Your task to perform on an android device: Open privacy settings Image 0: 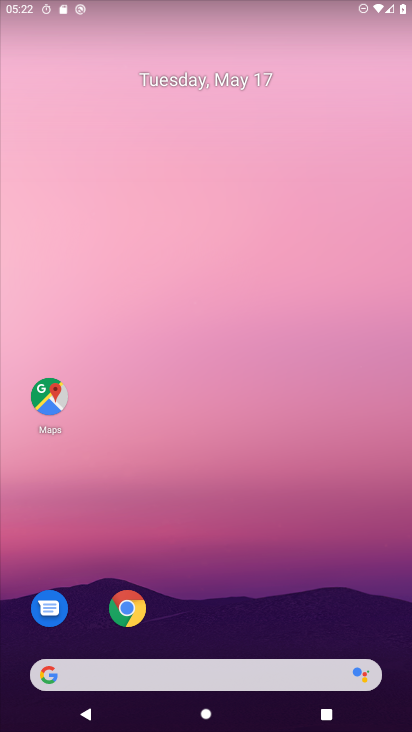
Step 0: drag from (175, 631) to (223, 248)
Your task to perform on an android device: Open privacy settings Image 1: 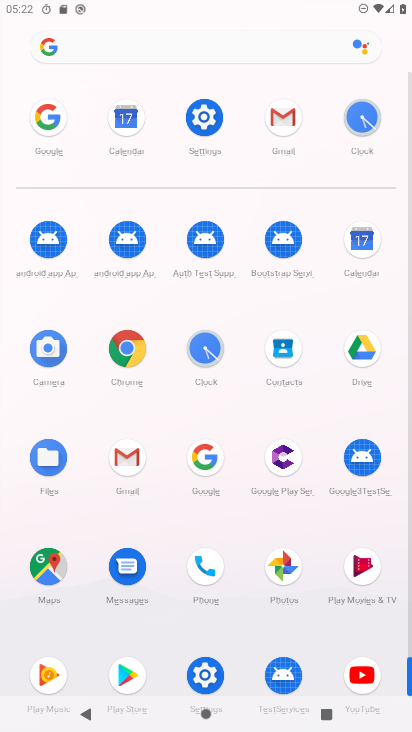
Step 1: click (212, 116)
Your task to perform on an android device: Open privacy settings Image 2: 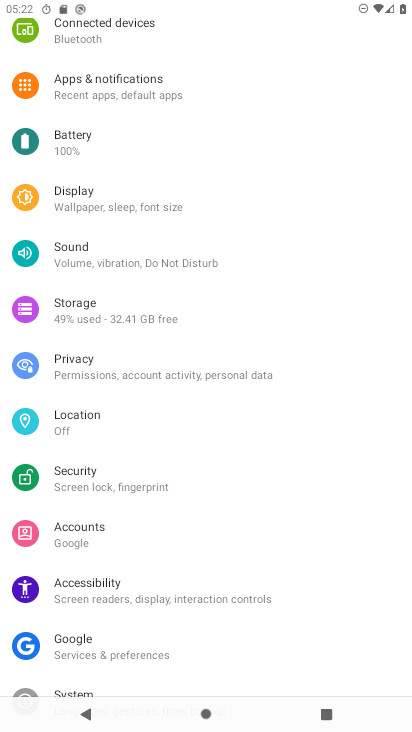
Step 2: click (107, 368)
Your task to perform on an android device: Open privacy settings Image 3: 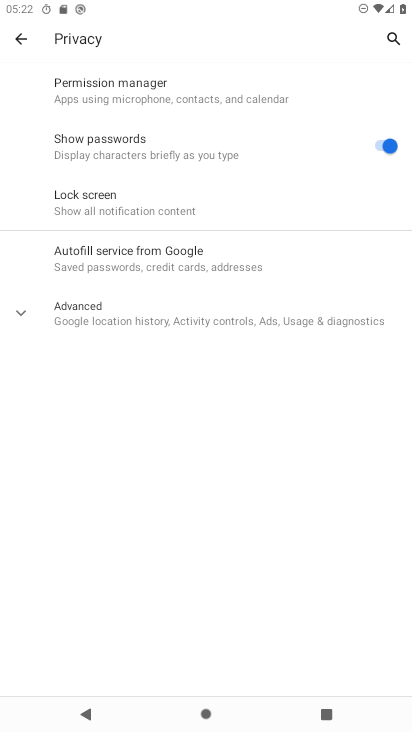
Step 3: click (90, 320)
Your task to perform on an android device: Open privacy settings Image 4: 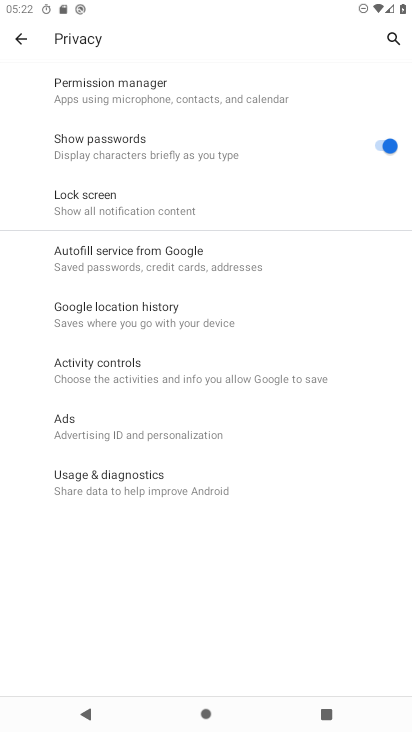
Step 4: task complete